Your task to perform on an android device: Check the weather Image 0: 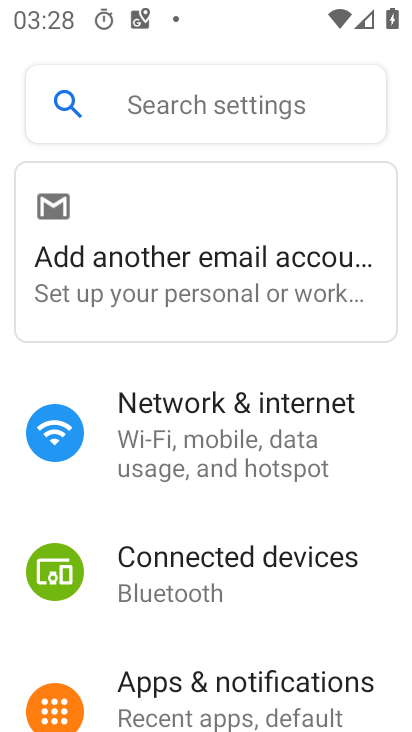
Step 0: press home button
Your task to perform on an android device: Check the weather Image 1: 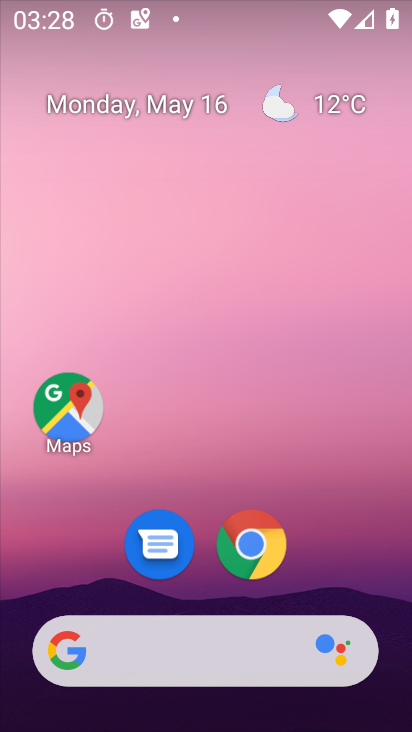
Step 1: click (281, 105)
Your task to perform on an android device: Check the weather Image 2: 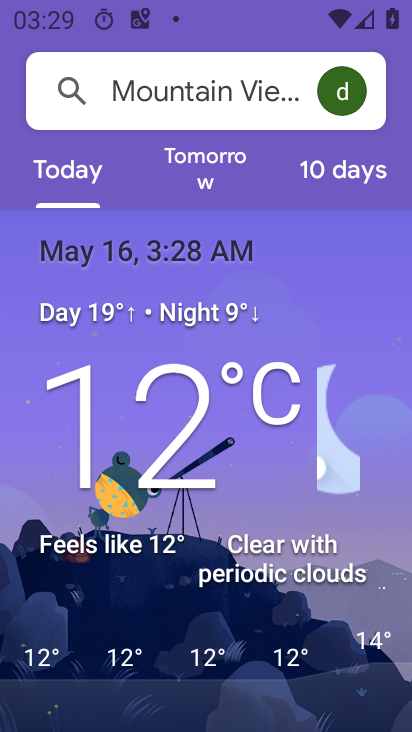
Step 2: task complete